Your task to perform on an android device: Open calendar and show me the third week of next month Image 0: 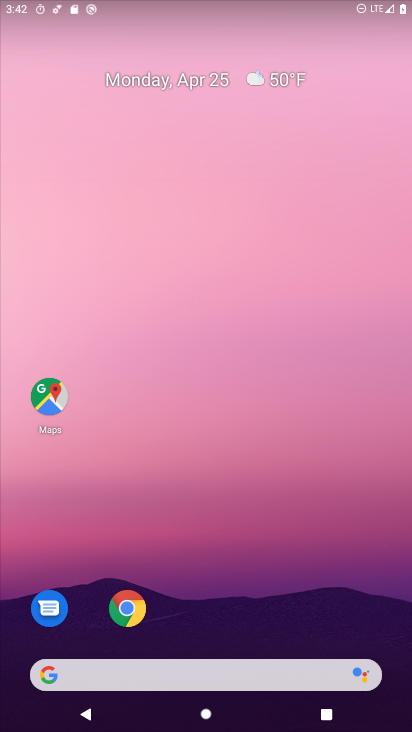
Step 0: drag from (201, 628) to (238, 179)
Your task to perform on an android device: Open calendar and show me the third week of next month Image 1: 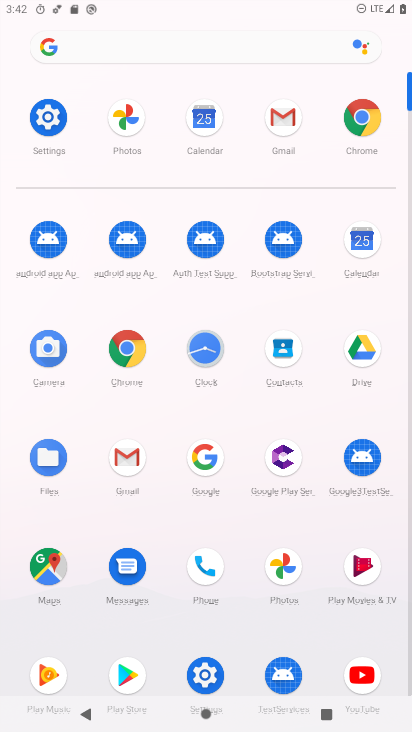
Step 1: click (356, 251)
Your task to perform on an android device: Open calendar and show me the third week of next month Image 2: 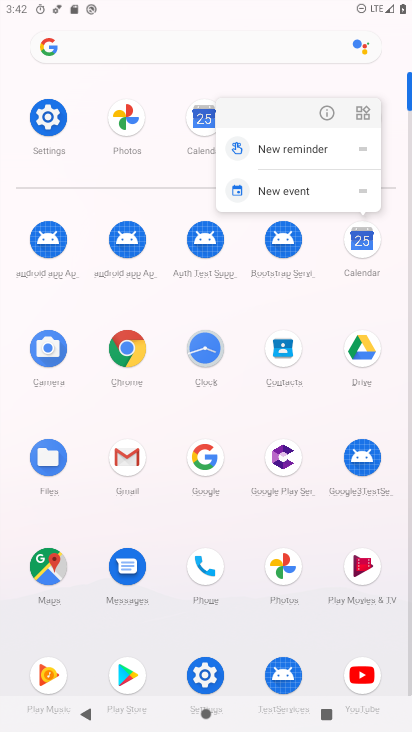
Step 2: click (356, 251)
Your task to perform on an android device: Open calendar and show me the third week of next month Image 3: 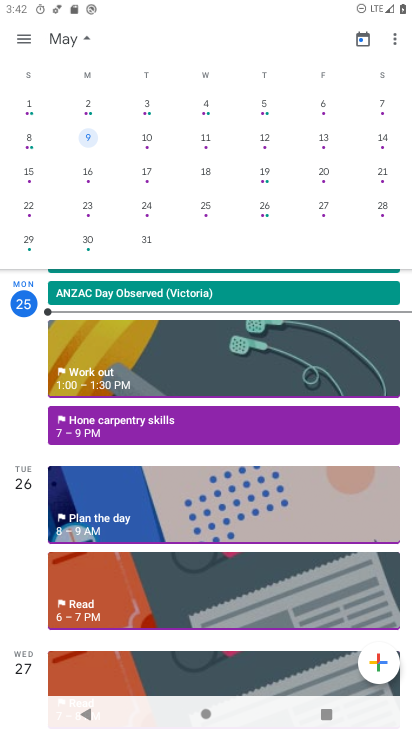
Step 3: click (82, 168)
Your task to perform on an android device: Open calendar and show me the third week of next month Image 4: 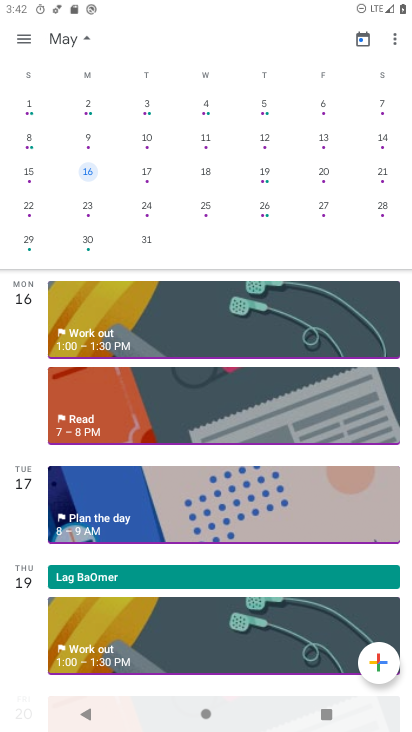
Step 4: task complete